Your task to perform on an android device: Search for Mexican restaurants on Maps Image 0: 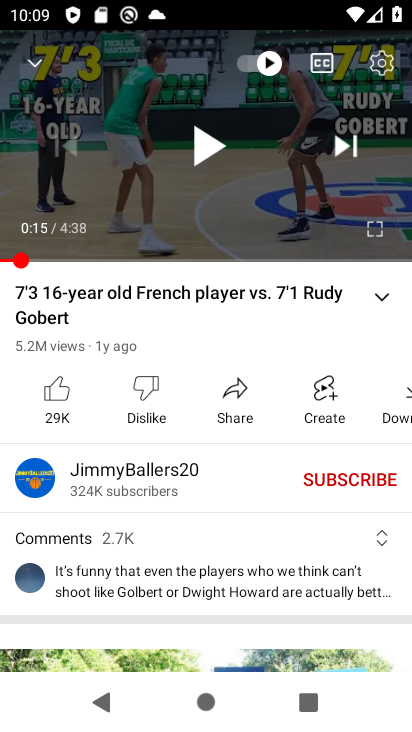
Step 0: press home button
Your task to perform on an android device: Search for Mexican restaurants on Maps Image 1: 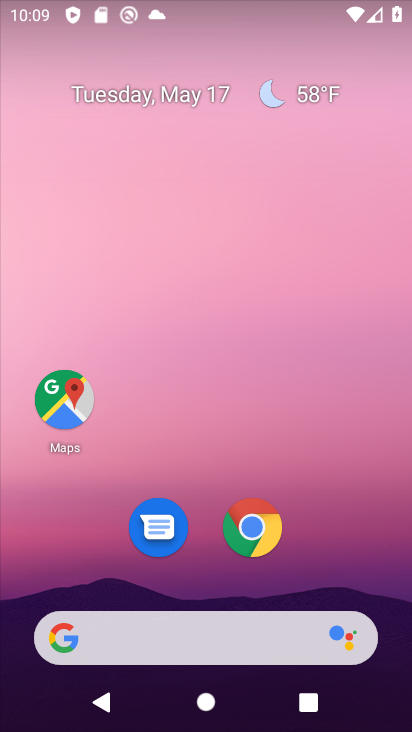
Step 1: click (66, 410)
Your task to perform on an android device: Search for Mexican restaurants on Maps Image 2: 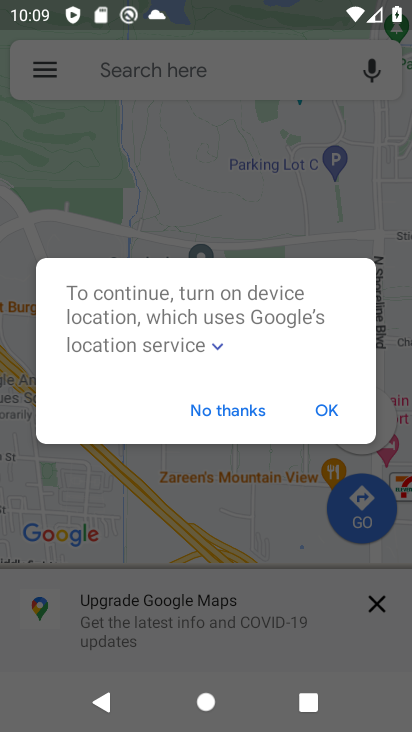
Step 2: click (201, 420)
Your task to perform on an android device: Search for Mexican restaurants on Maps Image 3: 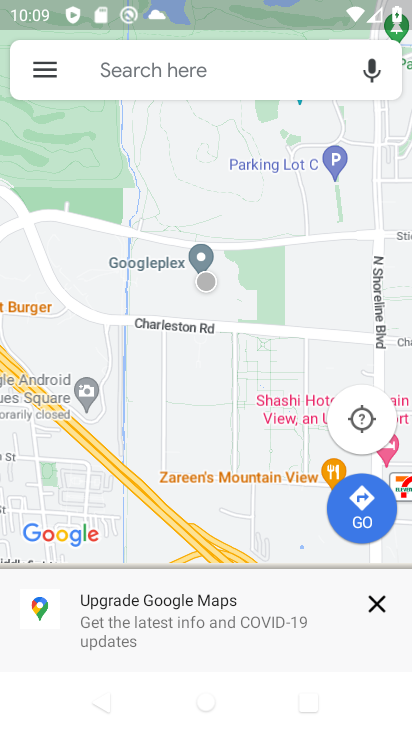
Step 3: click (128, 76)
Your task to perform on an android device: Search for Mexican restaurants on Maps Image 4: 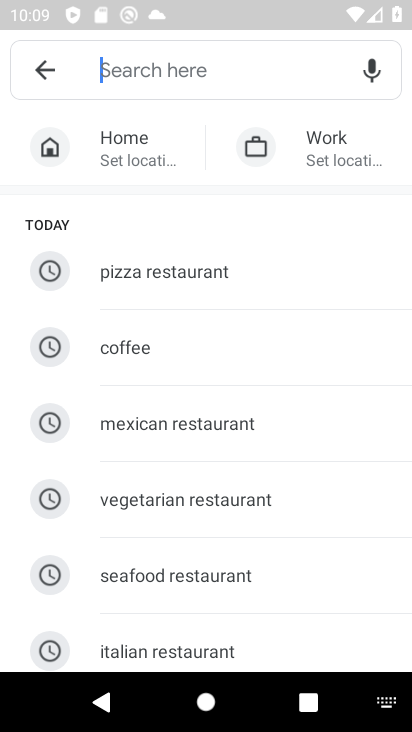
Step 4: type "mexican restaurant "
Your task to perform on an android device: Search for Mexican restaurants on Maps Image 5: 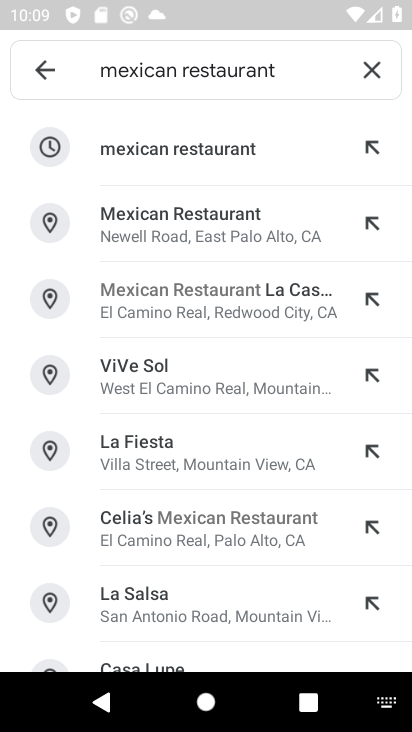
Step 5: click (154, 143)
Your task to perform on an android device: Search for Mexican restaurants on Maps Image 6: 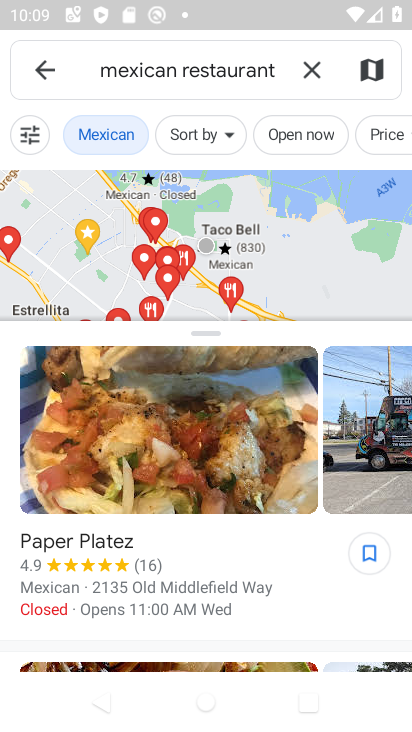
Step 6: task complete